Your task to perform on an android device: What's on my calendar tomorrow? Image 0: 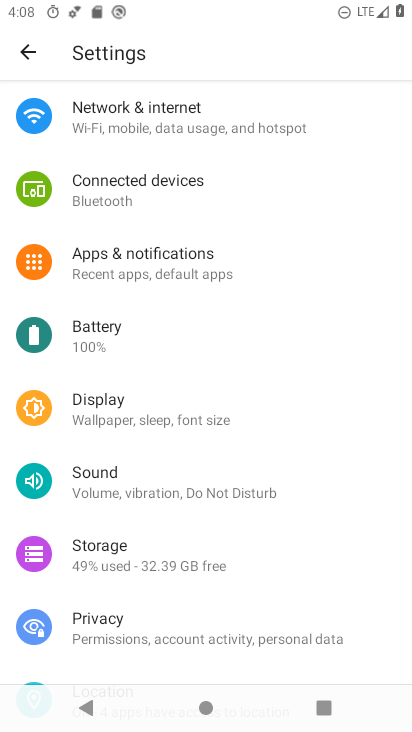
Step 0: press home button
Your task to perform on an android device: What's on my calendar tomorrow? Image 1: 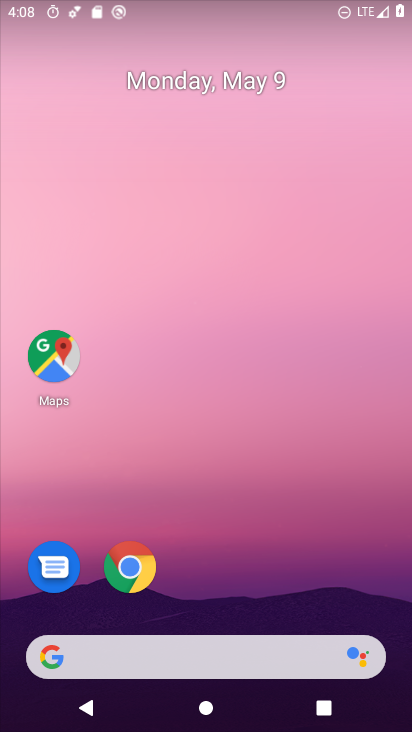
Step 1: click (219, 83)
Your task to perform on an android device: What's on my calendar tomorrow? Image 2: 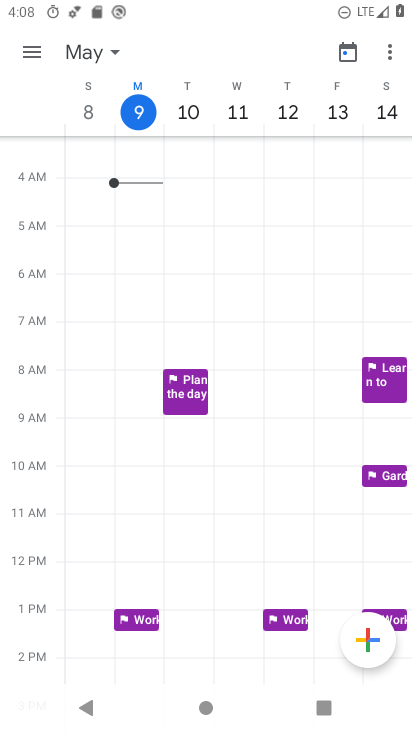
Step 2: click (39, 52)
Your task to perform on an android device: What's on my calendar tomorrow? Image 3: 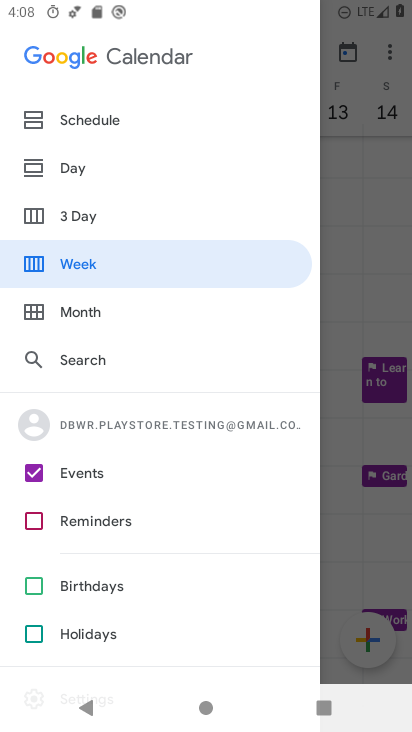
Step 3: click (106, 119)
Your task to perform on an android device: What's on my calendar tomorrow? Image 4: 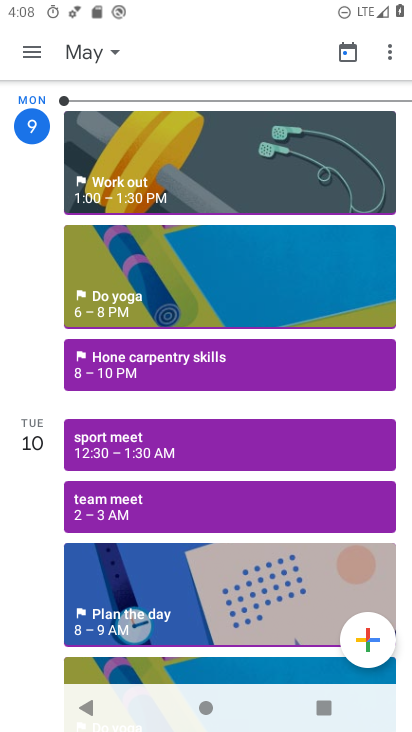
Step 4: task complete